Your task to perform on an android device: View the shopping cart on bestbuy.com. Add usb-b to the cart on bestbuy.com, then select checkout. Image 0: 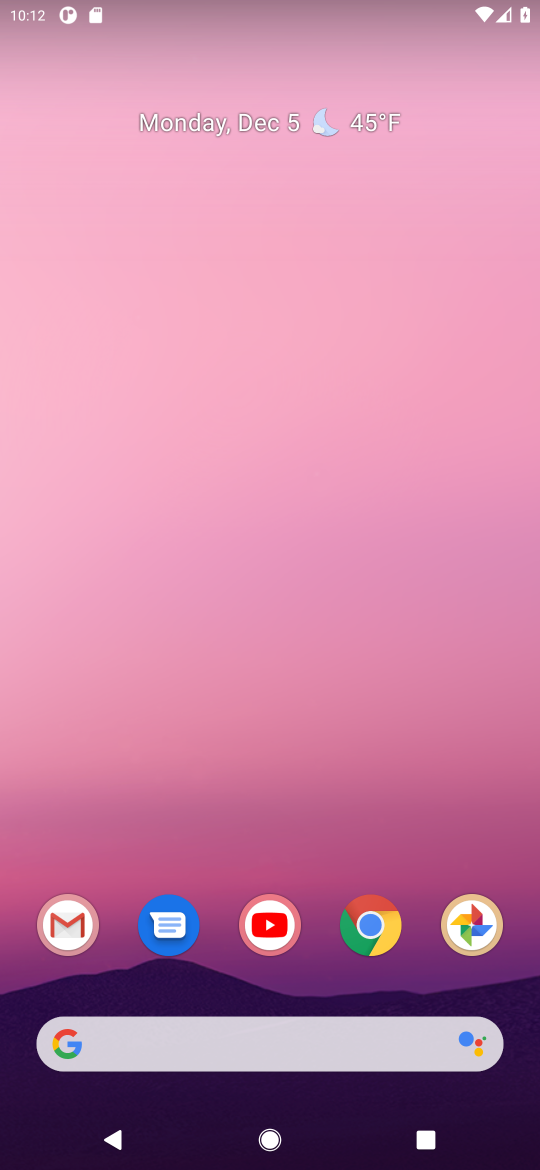
Step 0: click (372, 936)
Your task to perform on an android device: View the shopping cart on bestbuy.com. Add usb-b to the cart on bestbuy.com, then select checkout. Image 1: 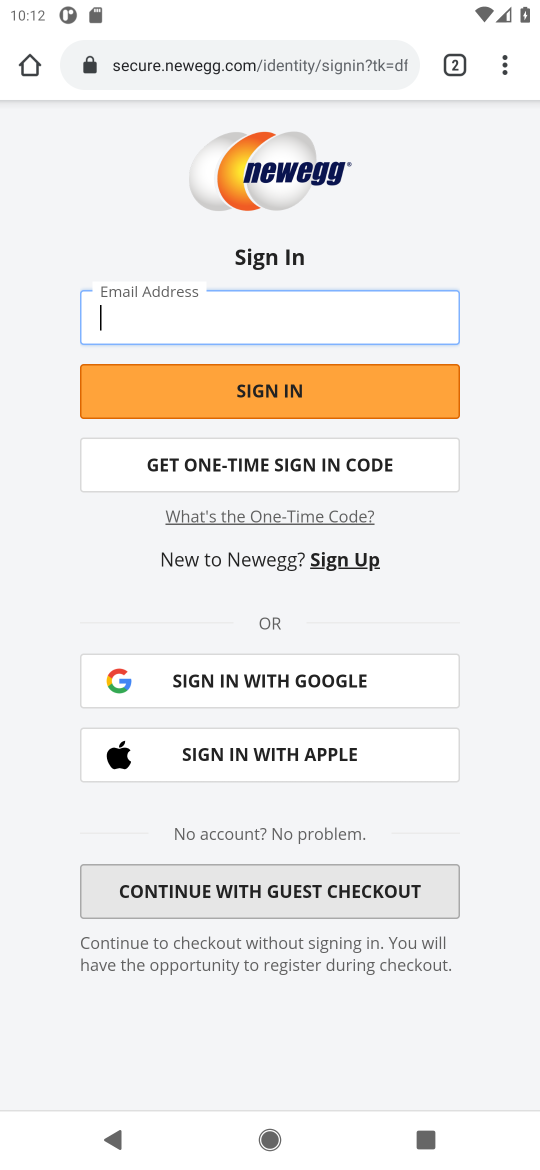
Step 1: click (214, 59)
Your task to perform on an android device: View the shopping cart on bestbuy.com. Add usb-b to the cart on bestbuy.com, then select checkout. Image 2: 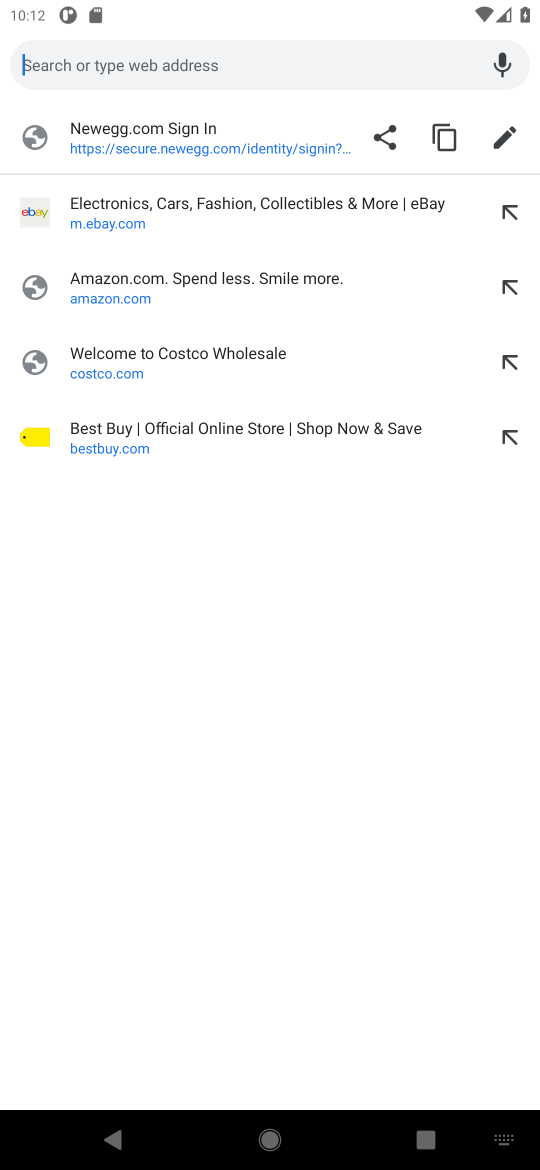
Step 2: click (100, 429)
Your task to perform on an android device: View the shopping cart on bestbuy.com. Add usb-b to the cart on bestbuy.com, then select checkout. Image 3: 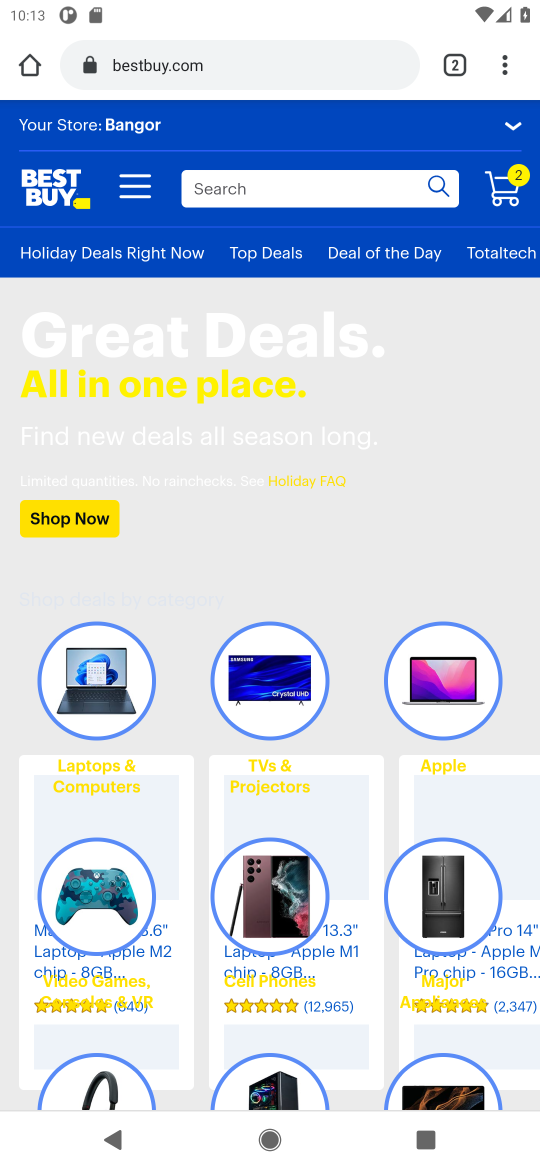
Step 3: click (505, 202)
Your task to perform on an android device: View the shopping cart on bestbuy.com. Add usb-b to the cart on bestbuy.com, then select checkout. Image 4: 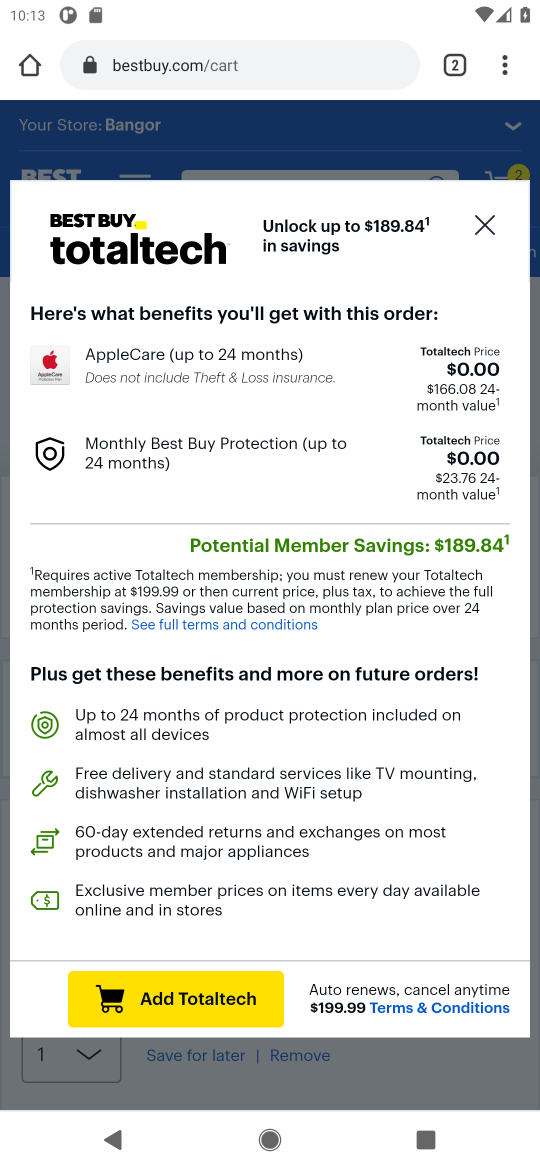
Step 4: click (484, 230)
Your task to perform on an android device: View the shopping cart on bestbuy.com. Add usb-b to the cart on bestbuy.com, then select checkout. Image 5: 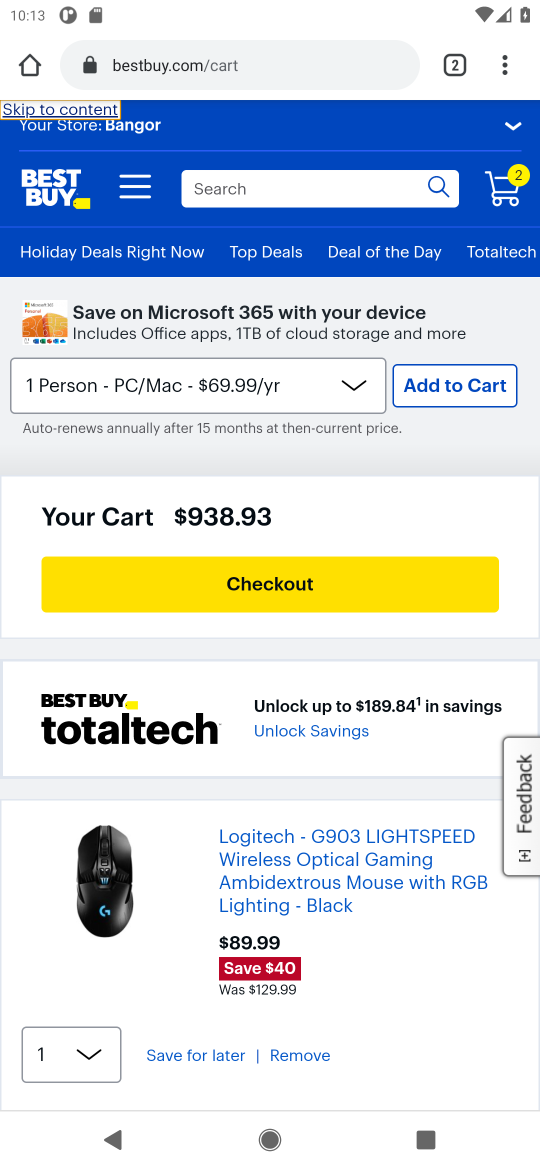
Step 5: click (263, 187)
Your task to perform on an android device: View the shopping cart on bestbuy.com. Add usb-b to the cart on bestbuy.com, then select checkout. Image 6: 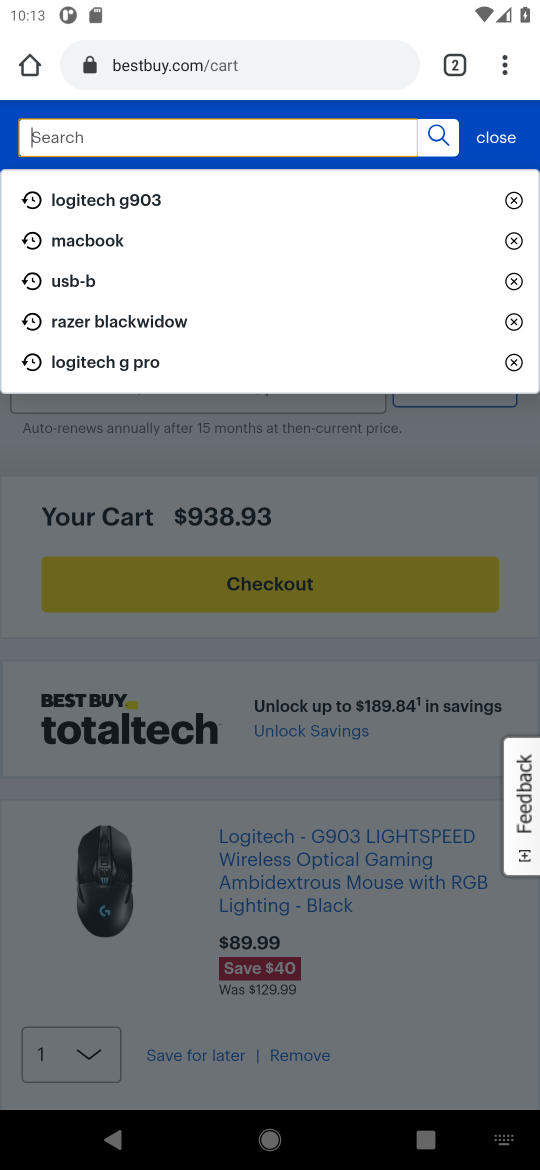
Step 6: type "usb-b"
Your task to perform on an android device: View the shopping cart on bestbuy.com. Add usb-b to the cart on bestbuy.com, then select checkout. Image 7: 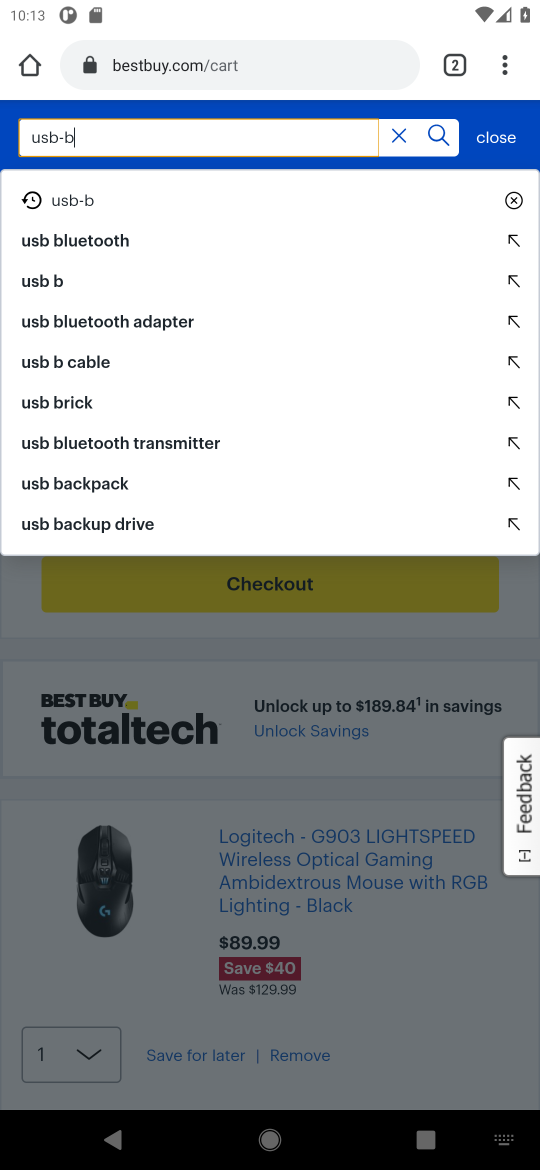
Step 7: click (82, 203)
Your task to perform on an android device: View the shopping cart on bestbuy.com. Add usb-b to the cart on bestbuy.com, then select checkout. Image 8: 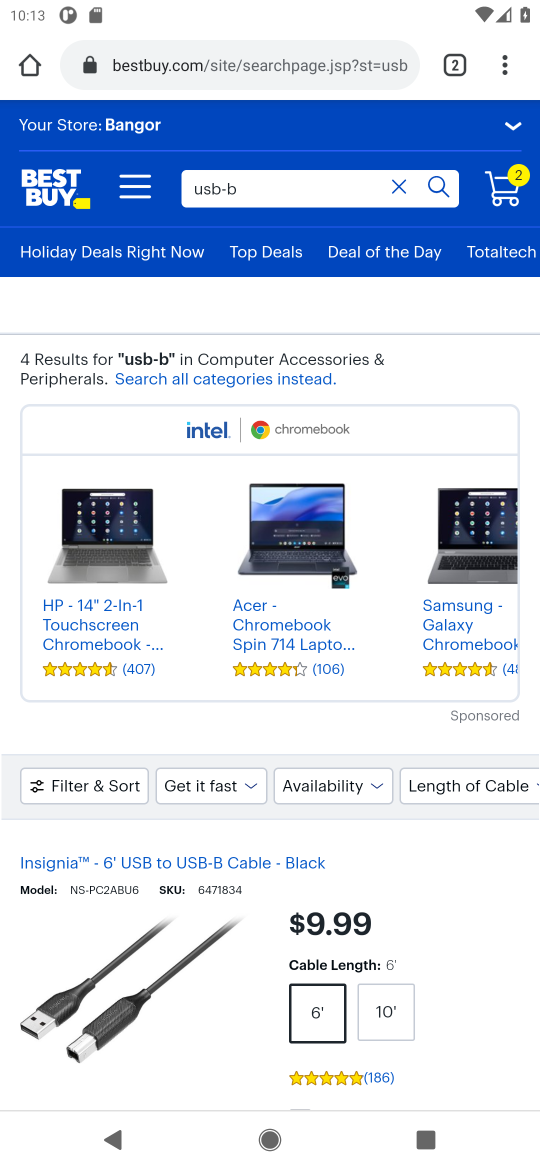
Step 8: drag from (272, 799) to (276, 483)
Your task to perform on an android device: View the shopping cart on bestbuy.com. Add usb-b to the cart on bestbuy.com, then select checkout. Image 9: 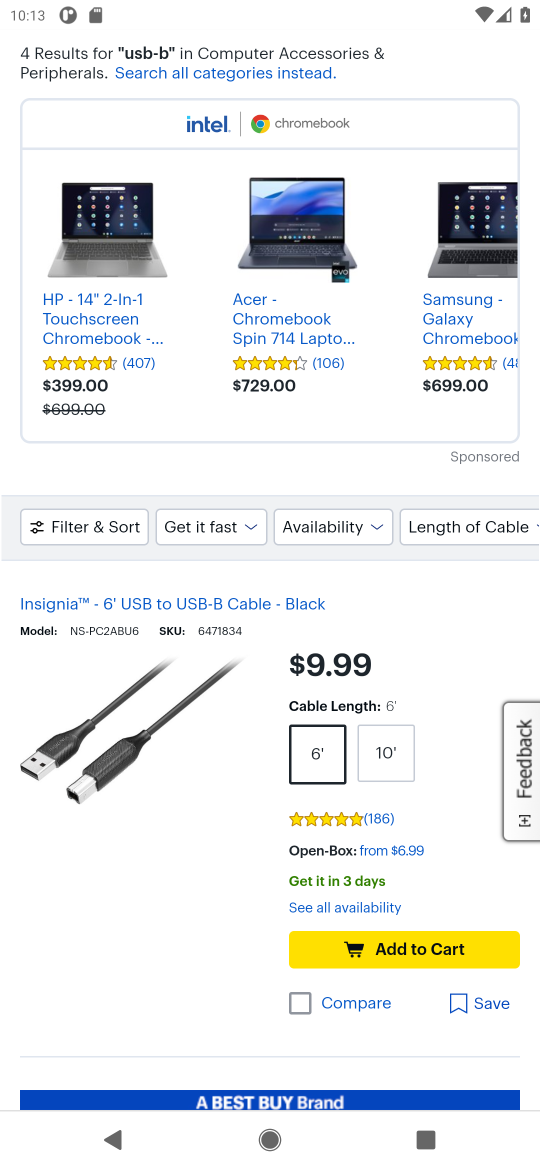
Step 9: click (426, 955)
Your task to perform on an android device: View the shopping cart on bestbuy.com. Add usb-b to the cart on bestbuy.com, then select checkout. Image 10: 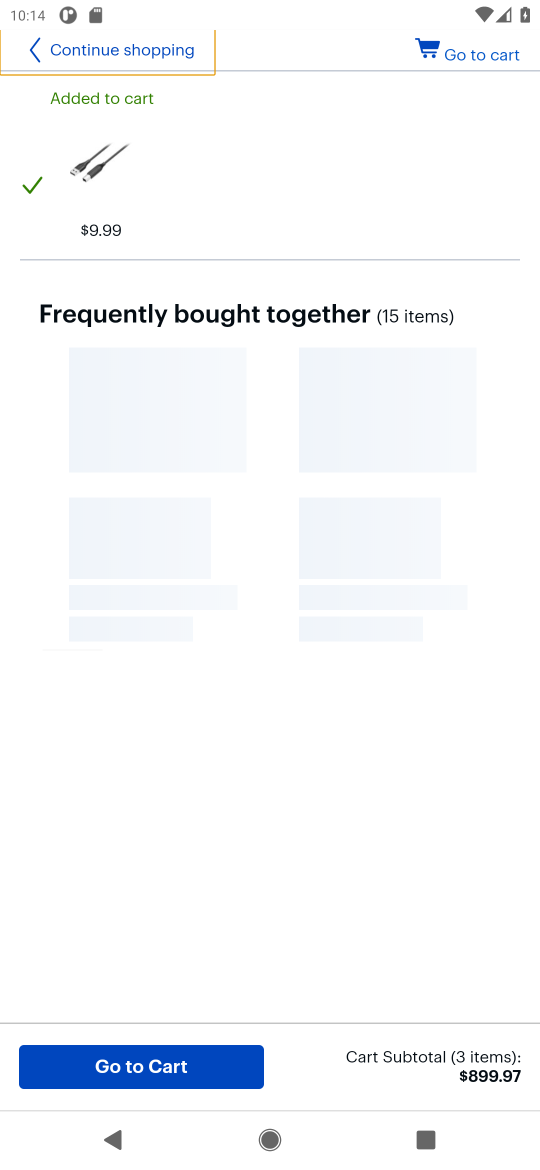
Step 10: click (478, 54)
Your task to perform on an android device: View the shopping cart on bestbuy.com. Add usb-b to the cart on bestbuy.com, then select checkout. Image 11: 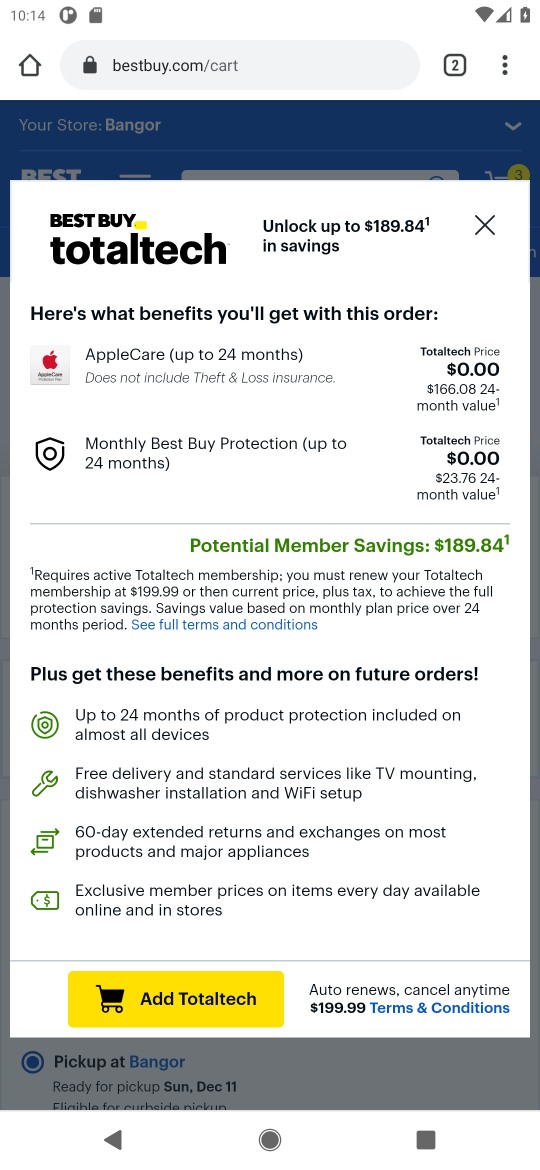
Step 11: click (244, 585)
Your task to perform on an android device: View the shopping cart on bestbuy.com. Add usb-b to the cart on bestbuy.com, then select checkout. Image 12: 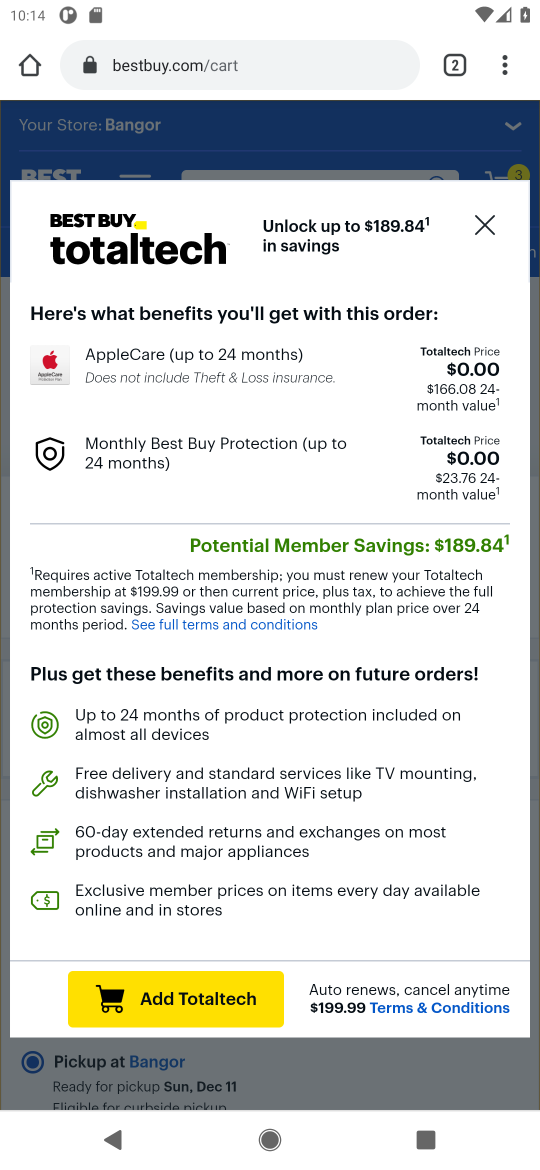
Step 12: click (478, 228)
Your task to perform on an android device: View the shopping cart on bestbuy.com. Add usb-b to the cart on bestbuy.com, then select checkout. Image 13: 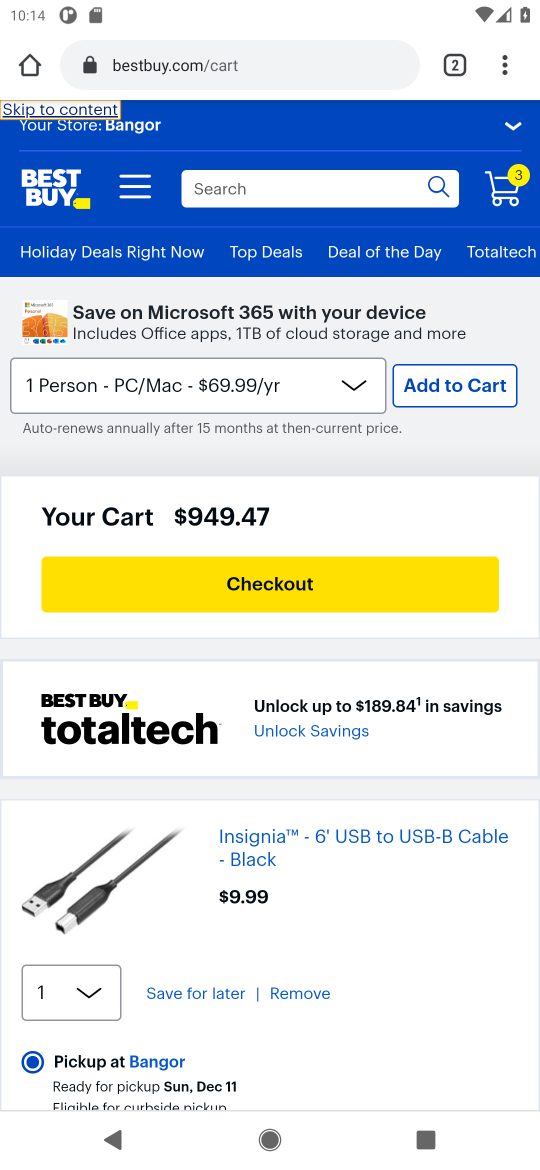
Step 13: click (237, 592)
Your task to perform on an android device: View the shopping cart on bestbuy.com. Add usb-b to the cart on bestbuy.com, then select checkout. Image 14: 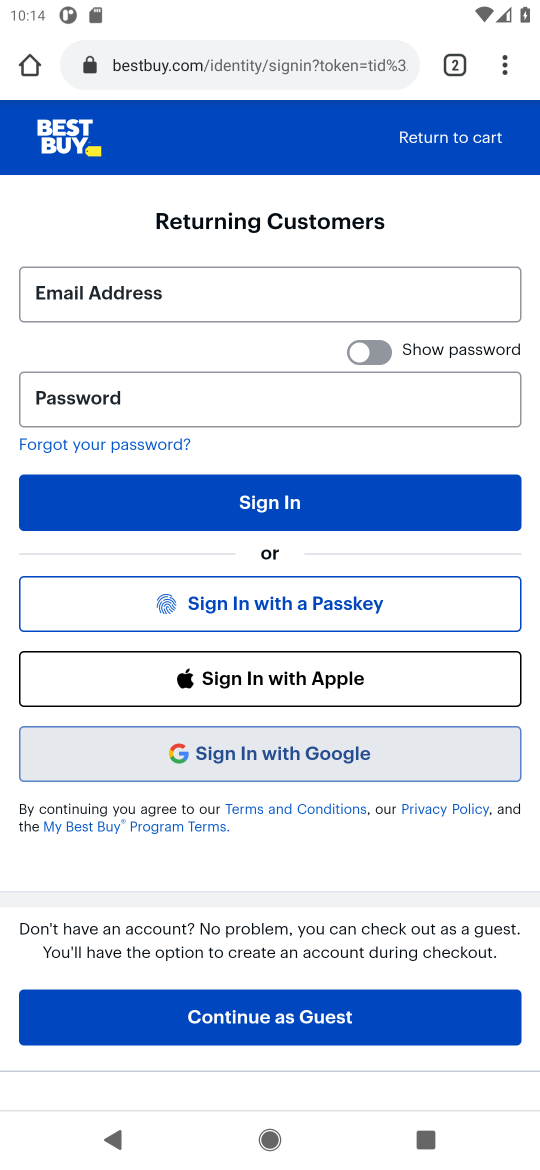
Step 14: task complete